Your task to perform on an android device: Open internet settings Image 0: 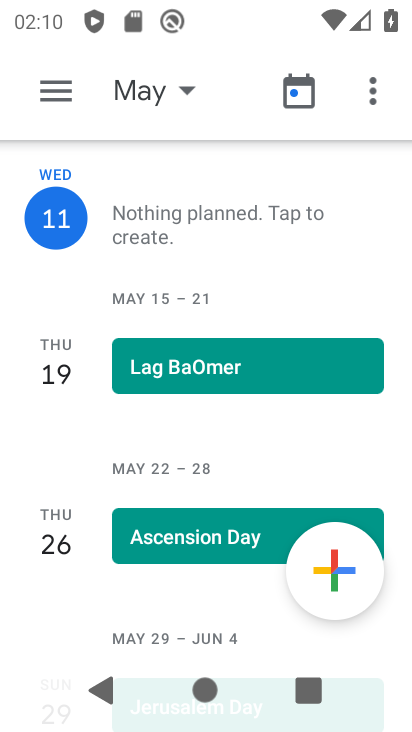
Step 0: press home button
Your task to perform on an android device: Open internet settings Image 1: 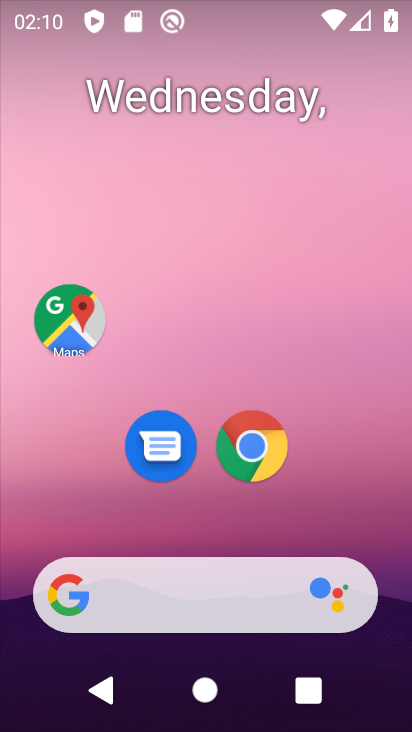
Step 1: drag from (356, 505) to (278, 237)
Your task to perform on an android device: Open internet settings Image 2: 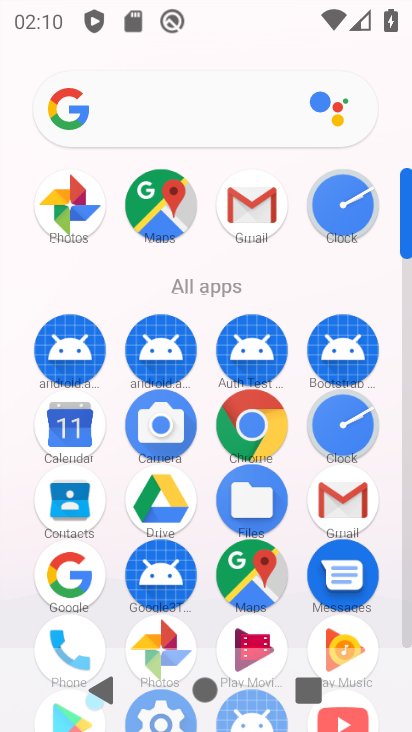
Step 2: drag from (199, 633) to (187, 504)
Your task to perform on an android device: Open internet settings Image 3: 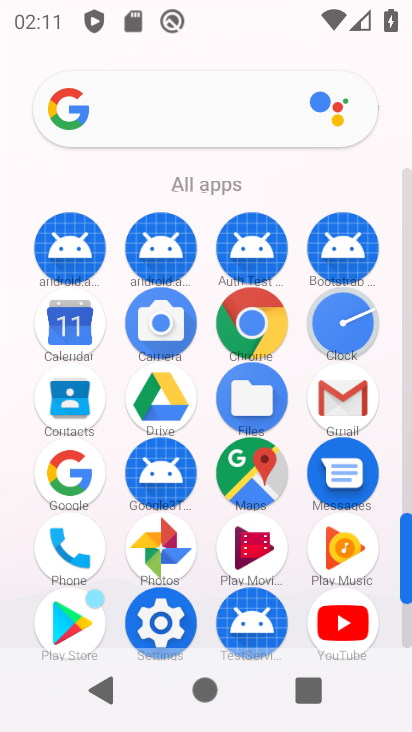
Step 3: click (175, 623)
Your task to perform on an android device: Open internet settings Image 4: 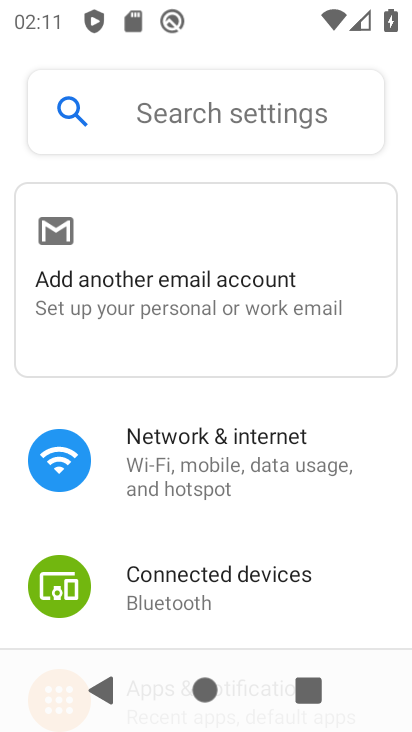
Step 4: drag from (175, 623) to (174, 472)
Your task to perform on an android device: Open internet settings Image 5: 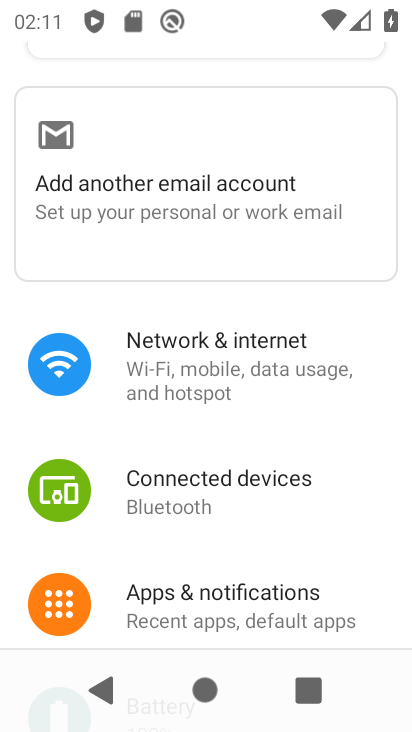
Step 5: click (216, 362)
Your task to perform on an android device: Open internet settings Image 6: 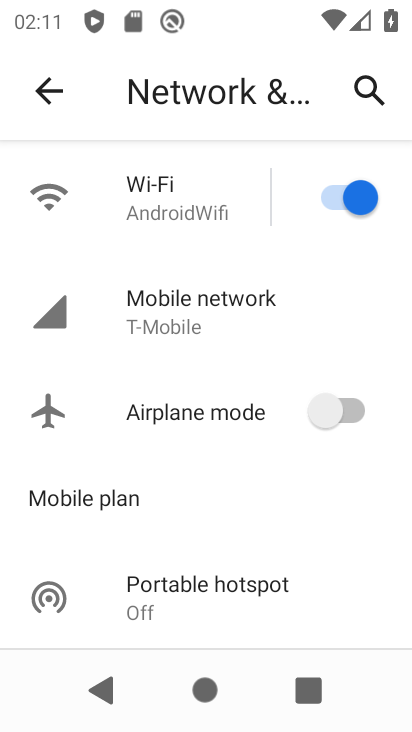
Step 6: task complete